Your task to perform on an android device: Open eBay Image 0: 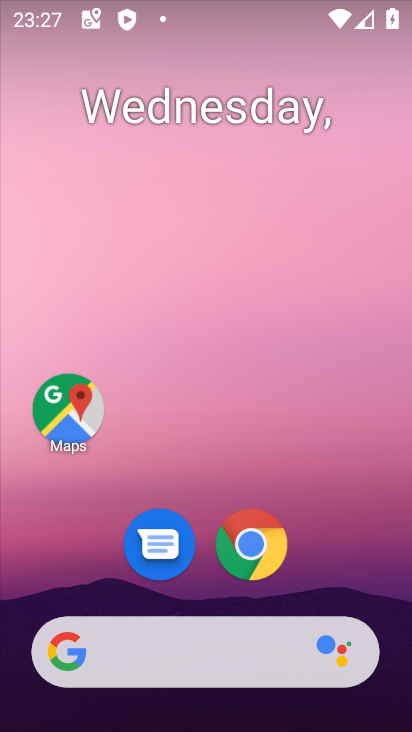
Step 0: click (248, 542)
Your task to perform on an android device: Open eBay Image 1: 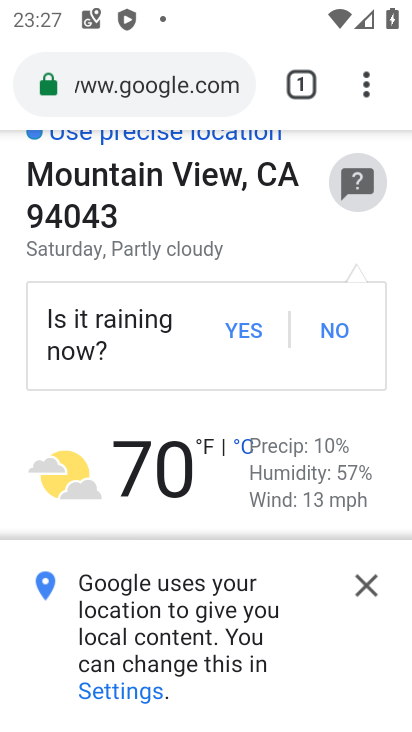
Step 1: drag from (359, 80) to (160, 170)
Your task to perform on an android device: Open eBay Image 2: 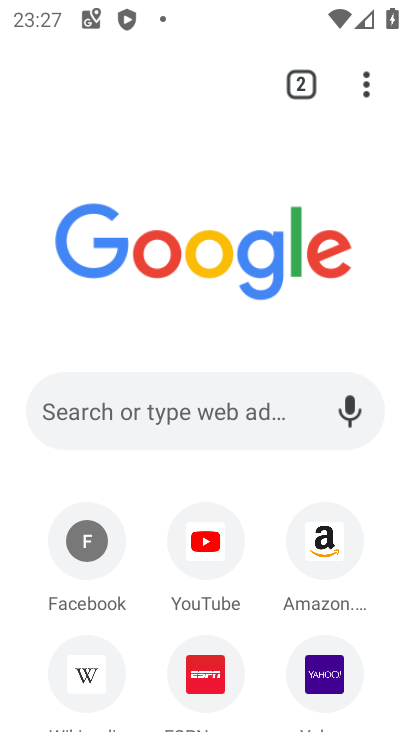
Step 2: drag from (274, 693) to (255, 362)
Your task to perform on an android device: Open eBay Image 3: 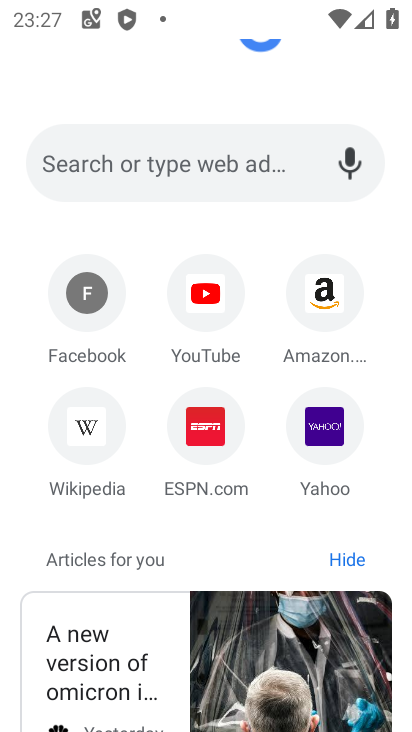
Step 3: click (186, 139)
Your task to perform on an android device: Open eBay Image 4: 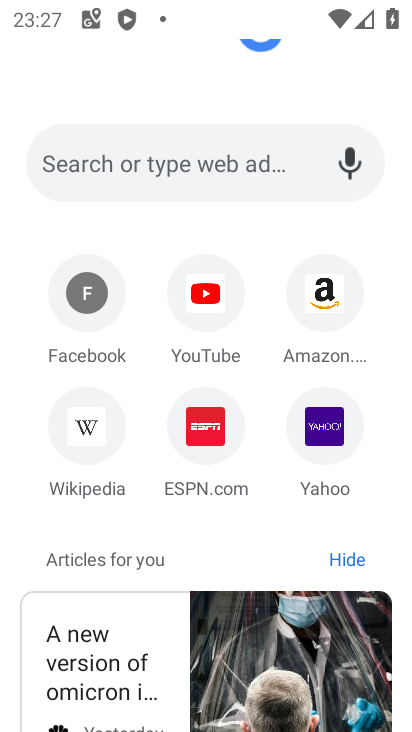
Step 4: drag from (267, 93) to (267, 584)
Your task to perform on an android device: Open eBay Image 5: 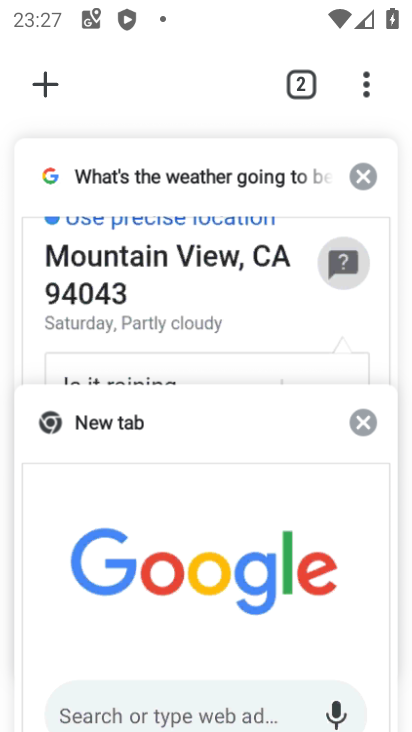
Step 5: drag from (255, 404) to (253, 358)
Your task to perform on an android device: Open eBay Image 6: 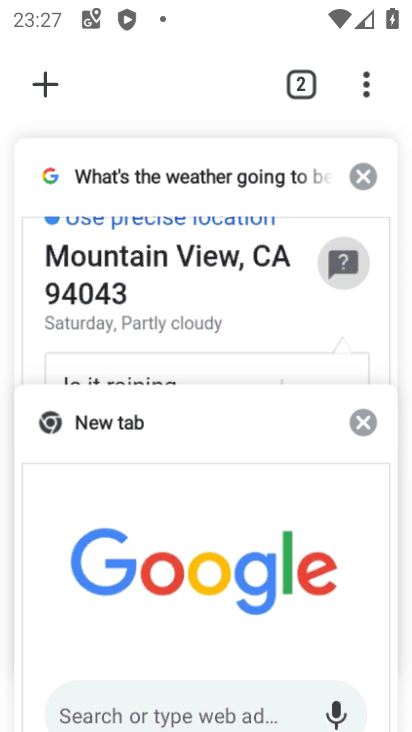
Step 6: click (306, 525)
Your task to perform on an android device: Open eBay Image 7: 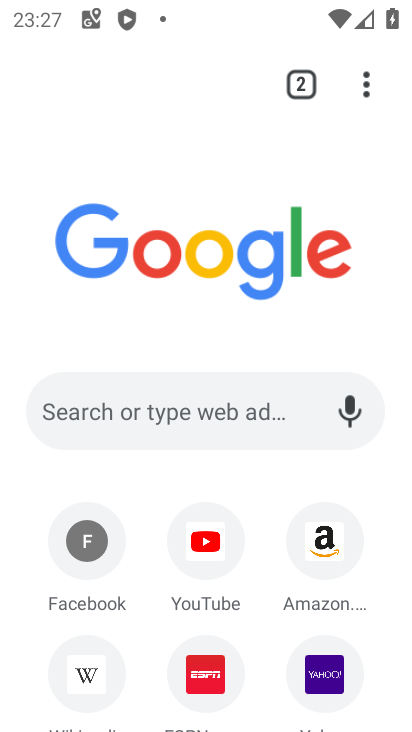
Step 7: click (228, 401)
Your task to perform on an android device: Open eBay Image 8: 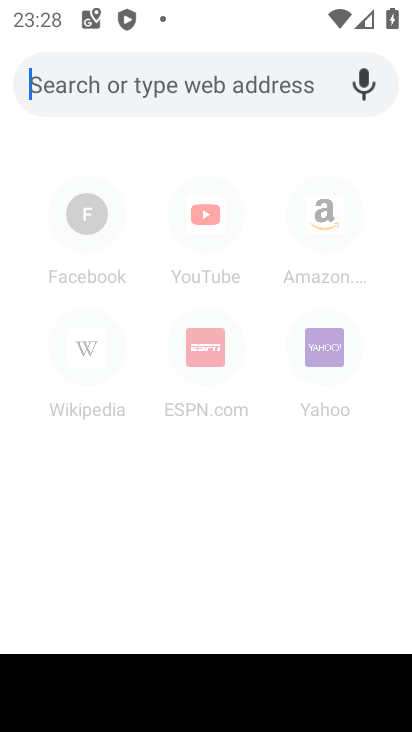
Step 8: type "eBay"
Your task to perform on an android device: Open eBay Image 9: 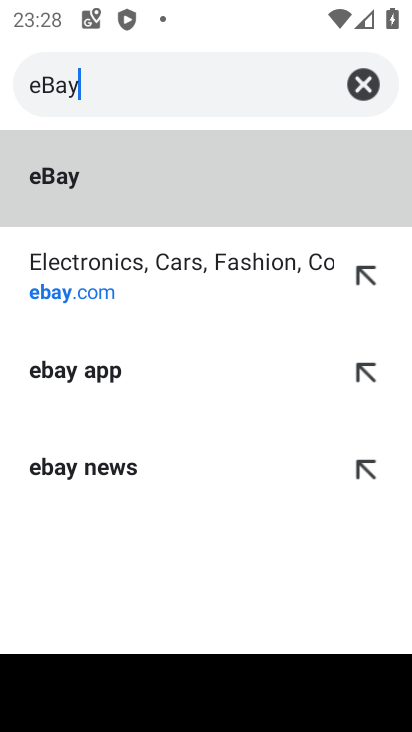
Step 9: click (139, 161)
Your task to perform on an android device: Open eBay Image 10: 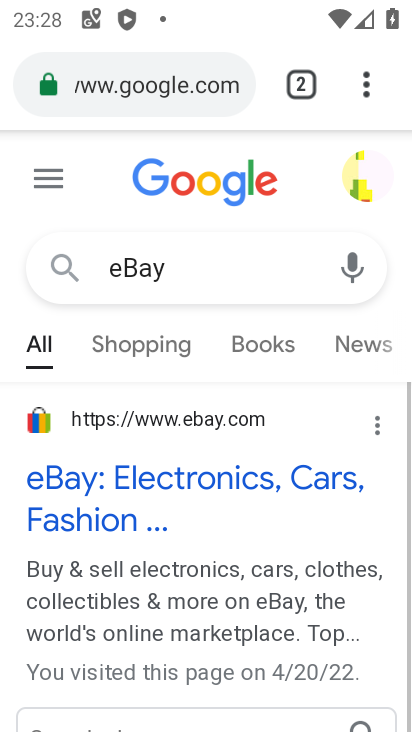
Step 10: click (189, 471)
Your task to perform on an android device: Open eBay Image 11: 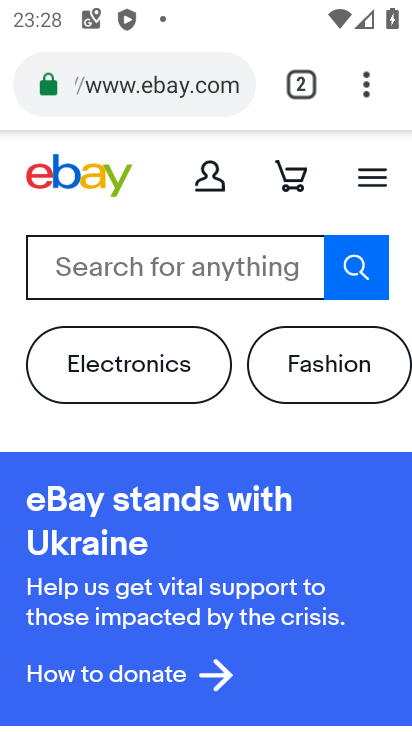
Step 11: task complete